Your task to perform on an android device: Go to Google Image 0: 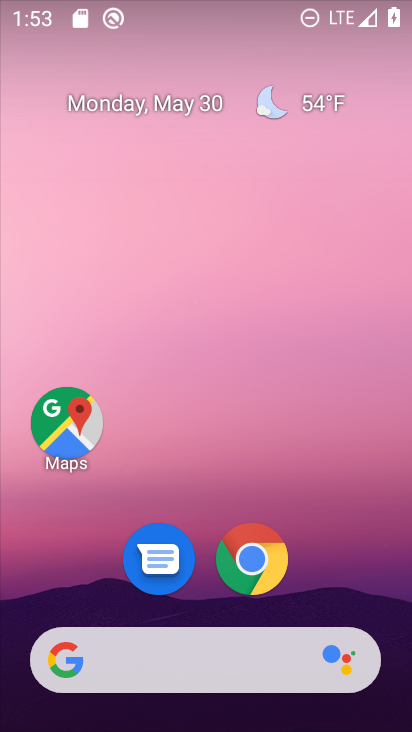
Step 0: drag from (320, 595) to (304, 7)
Your task to perform on an android device: Go to Google Image 1: 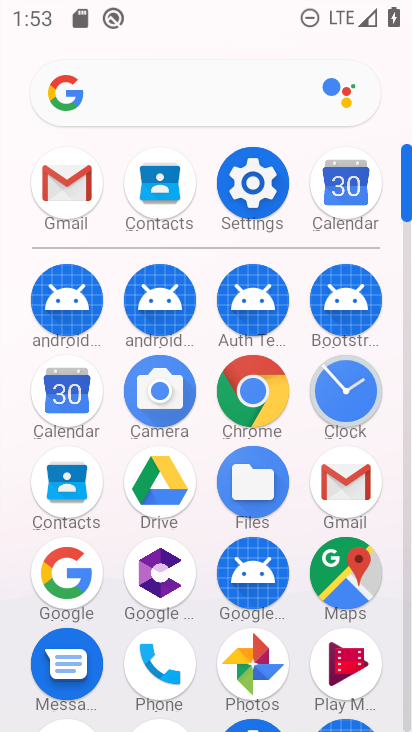
Step 1: click (60, 581)
Your task to perform on an android device: Go to Google Image 2: 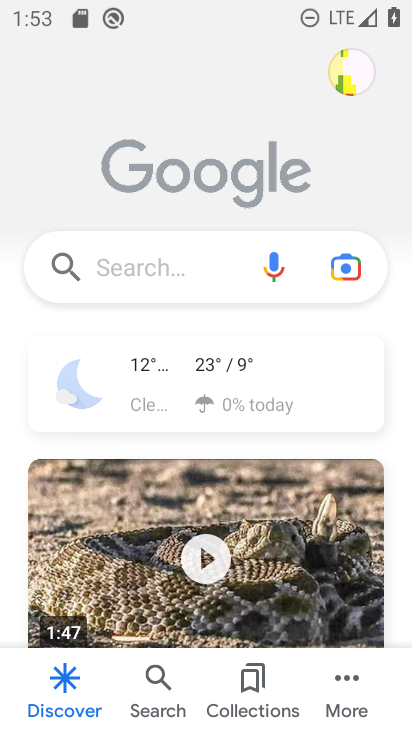
Step 2: task complete